Your task to perform on an android device: open app "Spotify" (install if not already installed) Image 0: 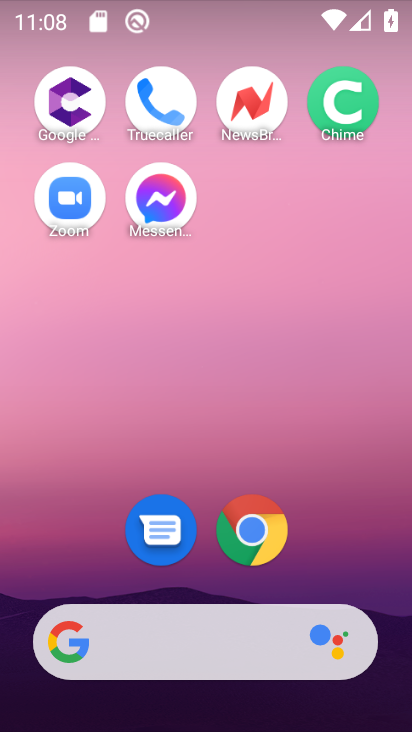
Step 0: drag from (167, 654) to (295, 26)
Your task to perform on an android device: open app "Spotify" (install if not already installed) Image 1: 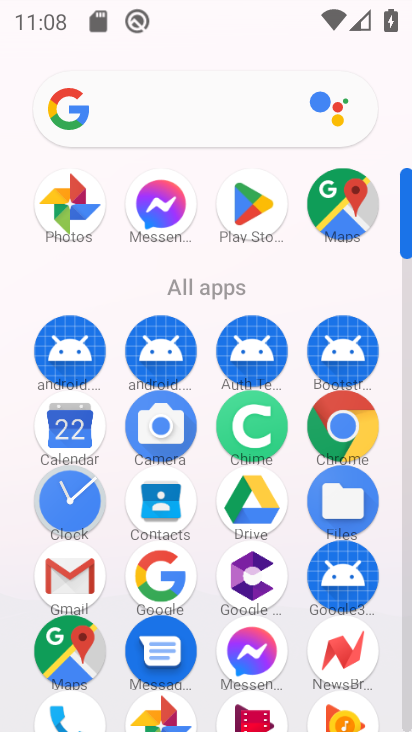
Step 1: click (253, 208)
Your task to perform on an android device: open app "Spotify" (install if not already installed) Image 2: 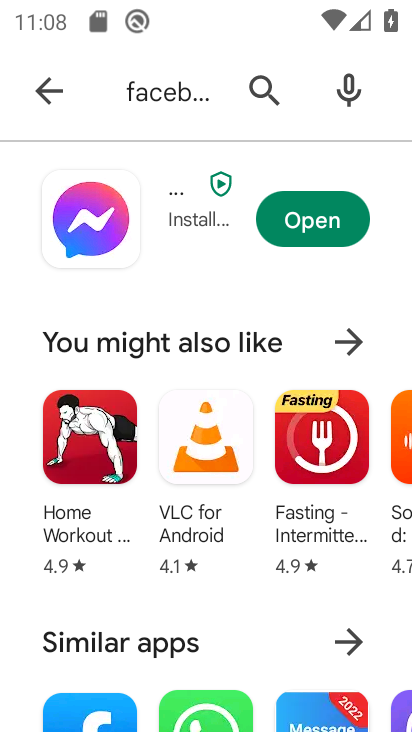
Step 2: press back button
Your task to perform on an android device: open app "Spotify" (install if not already installed) Image 3: 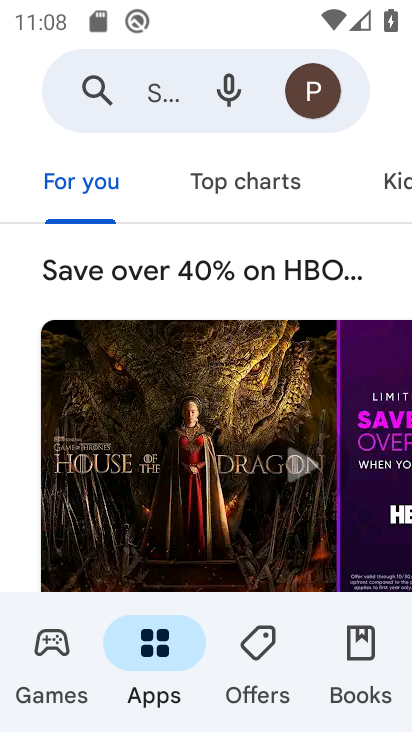
Step 3: click (181, 96)
Your task to perform on an android device: open app "Spotify" (install if not already installed) Image 4: 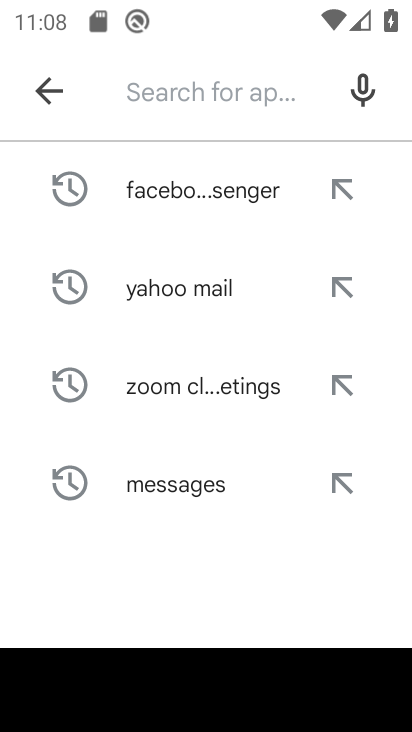
Step 4: type "Spotify"
Your task to perform on an android device: open app "Spotify" (install if not already installed) Image 5: 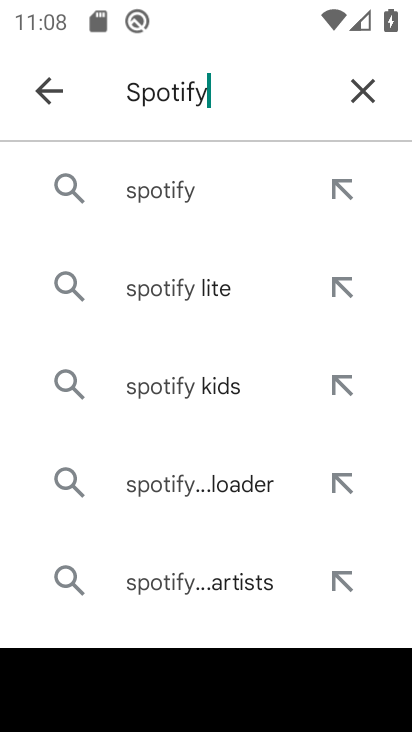
Step 5: click (182, 198)
Your task to perform on an android device: open app "Spotify" (install if not already installed) Image 6: 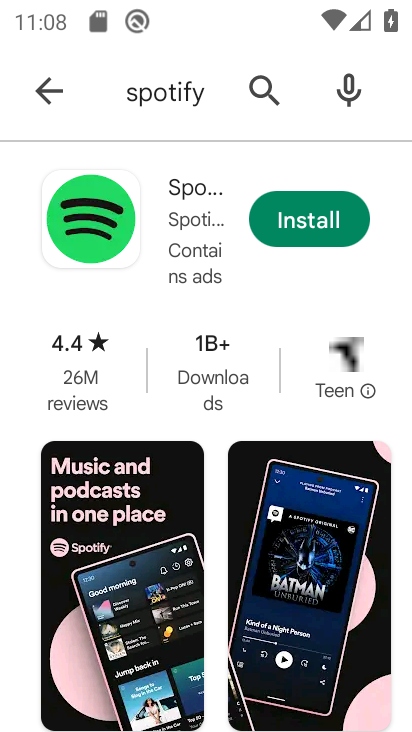
Step 6: click (317, 229)
Your task to perform on an android device: open app "Spotify" (install if not already installed) Image 7: 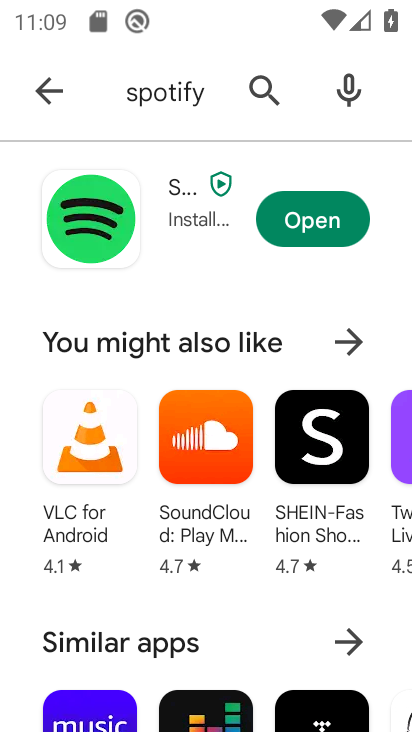
Step 7: click (317, 229)
Your task to perform on an android device: open app "Spotify" (install if not already installed) Image 8: 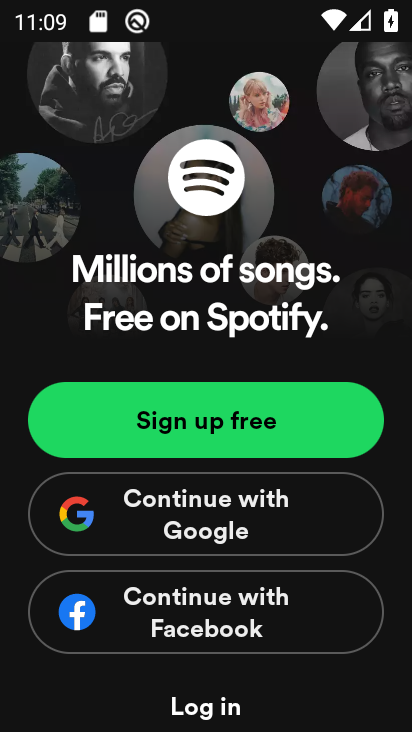
Step 8: task complete